Your task to perform on an android device: open app "PUBG MOBILE" (install if not already installed) Image 0: 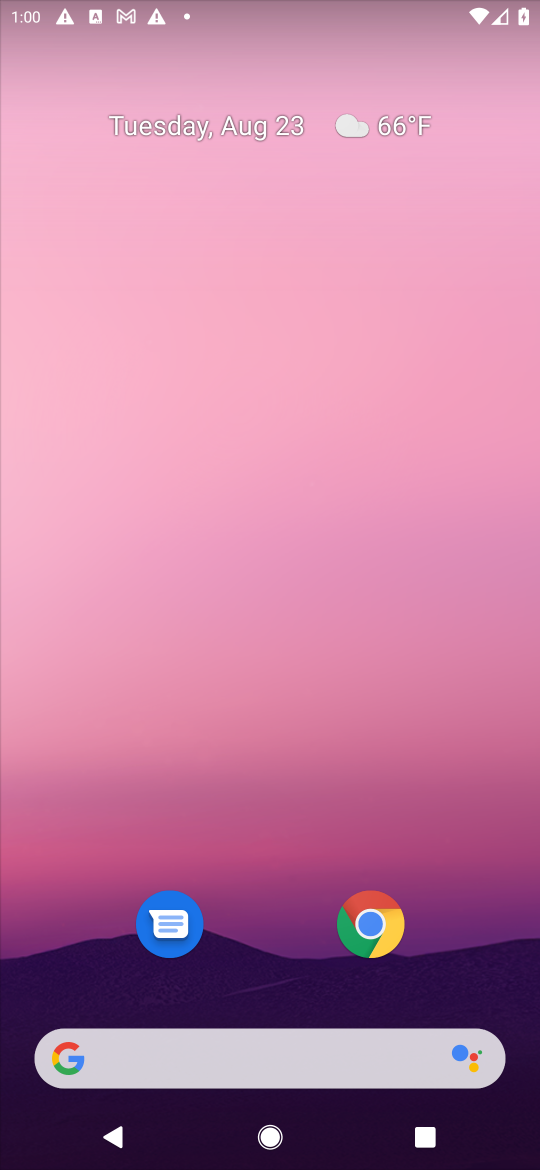
Step 0: press home button
Your task to perform on an android device: open app "PUBG MOBILE" (install if not already installed) Image 1: 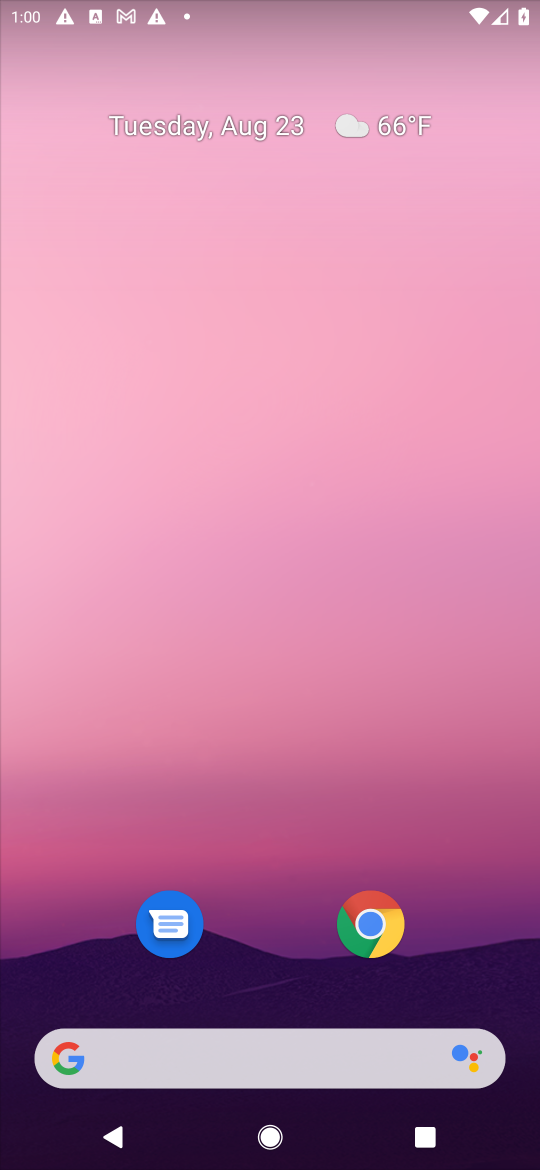
Step 1: drag from (457, 911) to (432, 123)
Your task to perform on an android device: open app "PUBG MOBILE" (install if not already installed) Image 2: 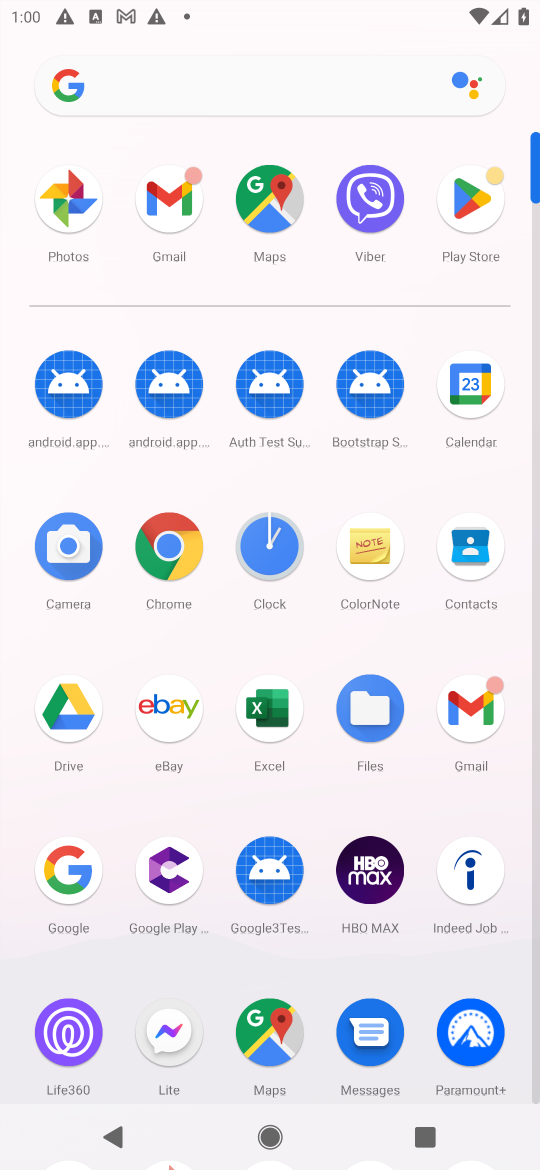
Step 2: click (467, 201)
Your task to perform on an android device: open app "PUBG MOBILE" (install if not already installed) Image 3: 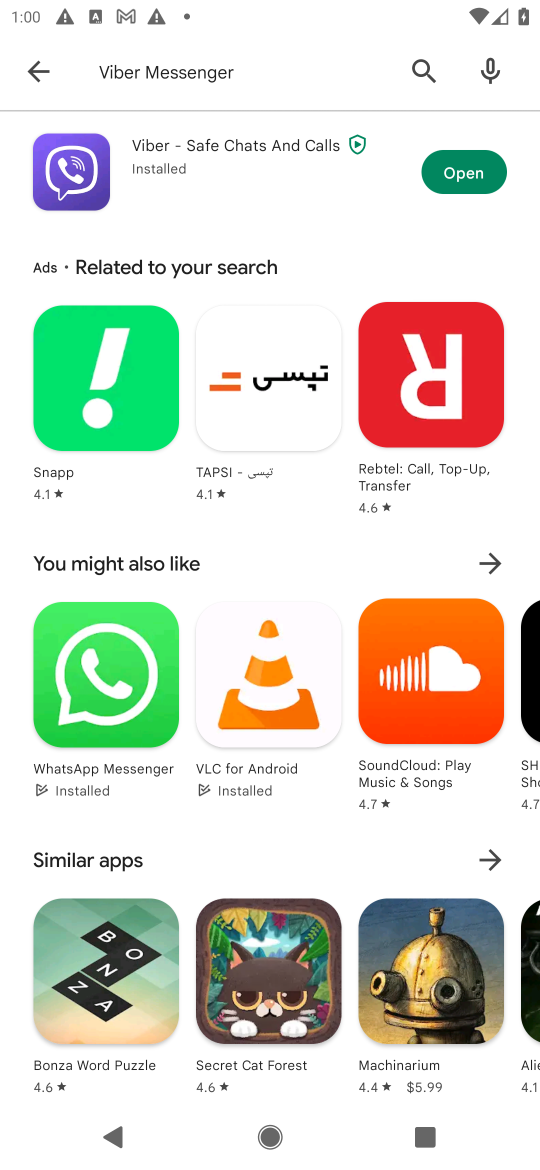
Step 3: press back button
Your task to perform on an android device: open app "PUBG MOBILE" (install if not already installed) Image 4: 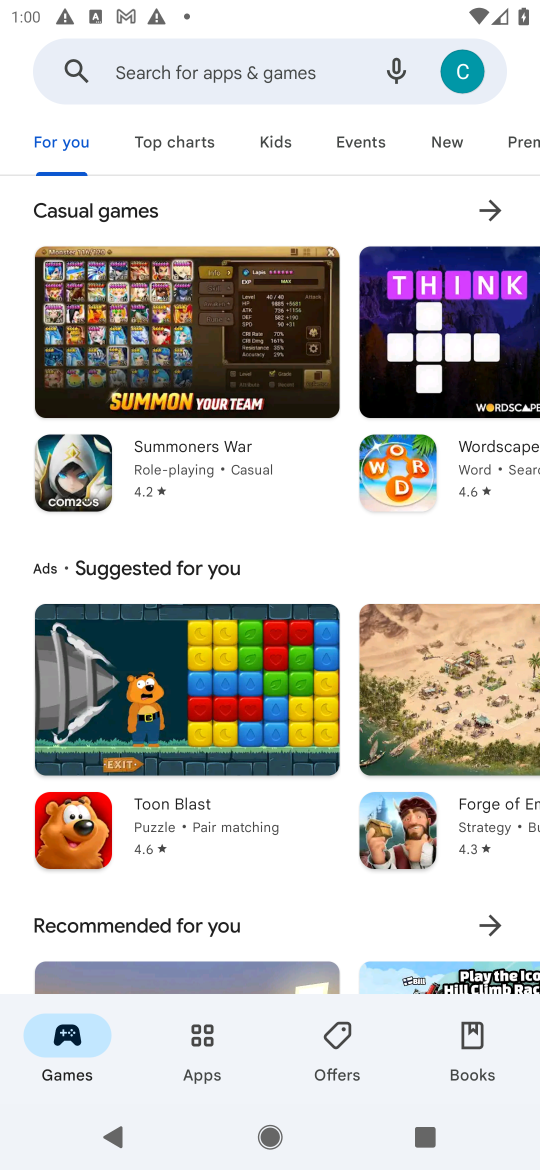
Step 4: click (223, 73)
Your task to perform on an android device: open app "PUBG MOBILE" (install if not already installed) Image 5: 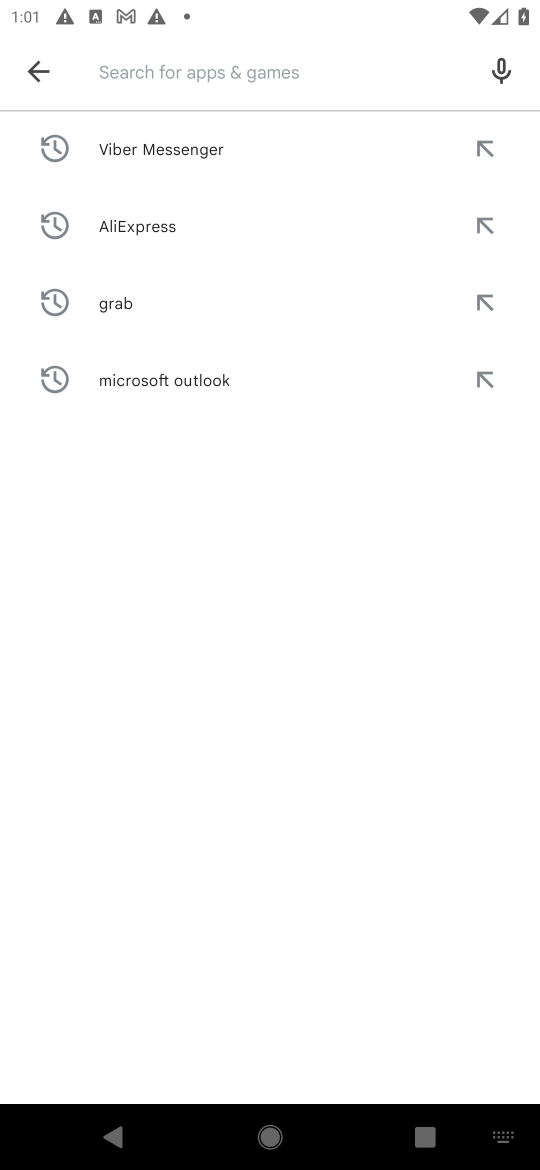
Step 5: press enter
Your task to perform on an android device: open app "PUBG MOBILE" (install if not already installed) Image 6: 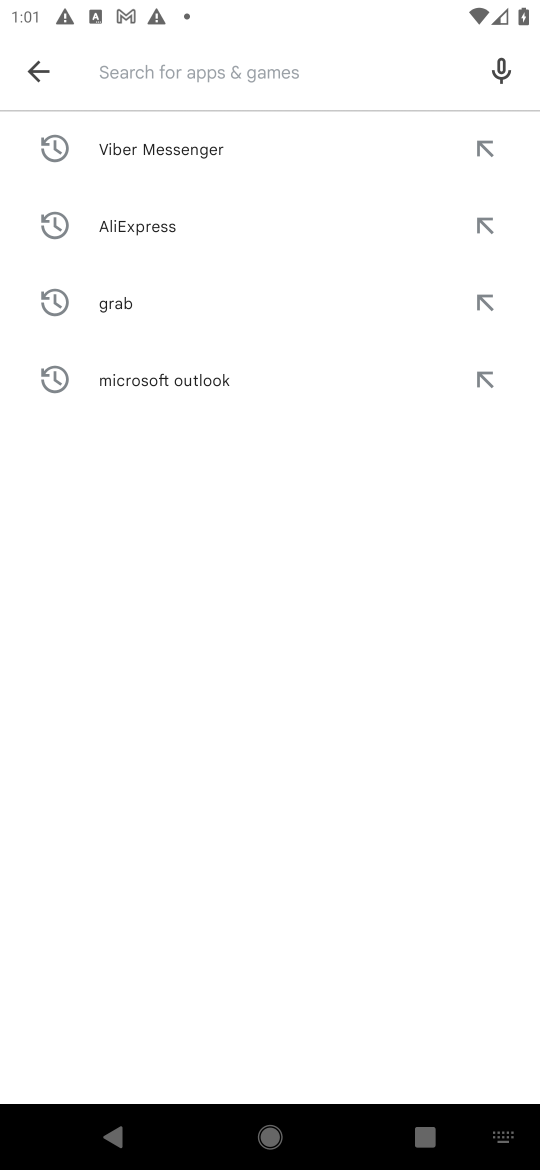
Step 6: type "PUBG MOBILE"
Your task to perform on an android device: open app "PUBG MOBILE" (install if not already installed) Image 7: 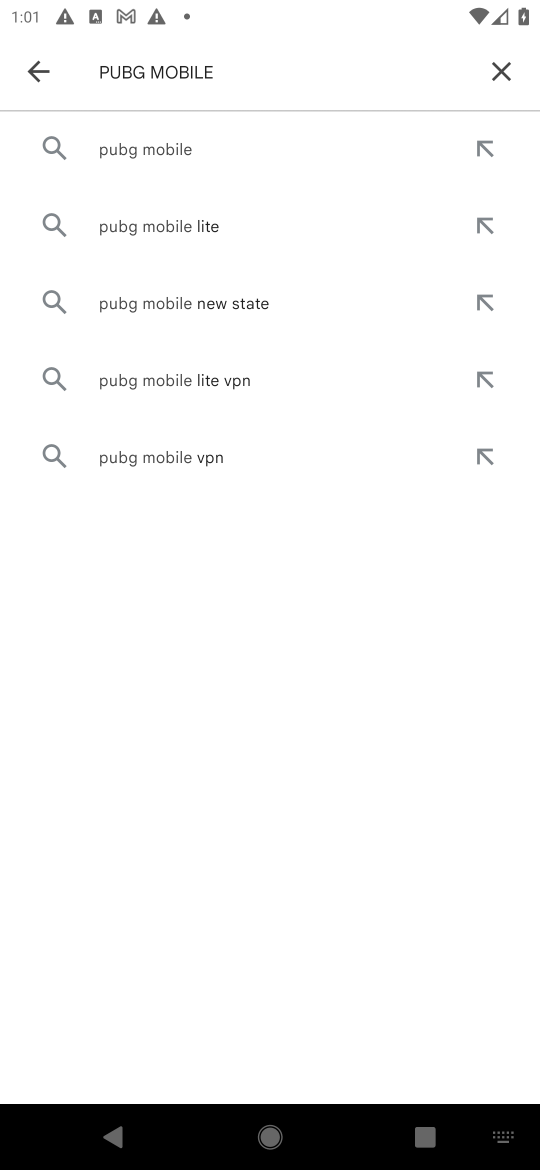
Step 7: click (166, 146)
Your task to perform on an android device: open app "PUBG MOBILE" (install if not already installed) Image 8: 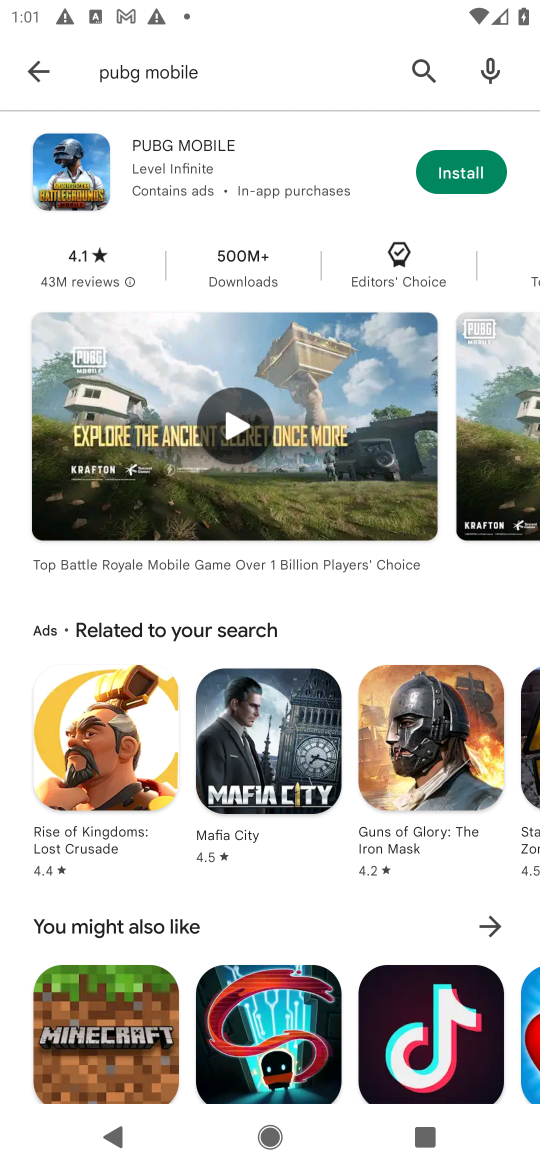
Step 8: click (463, 165)
Your task to perform on an android device: open app "PUBG MOBILE" (install if not already installed) Image 9: 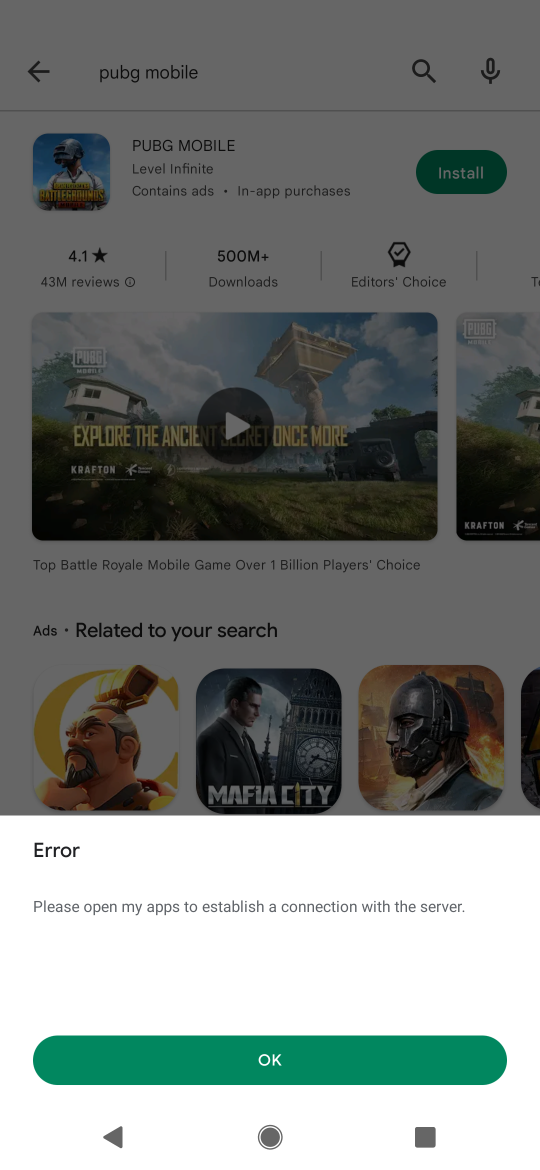
Step 9: task complete